Your task to perform on an android device: Search for pizza restaurants on Maps Image 0: 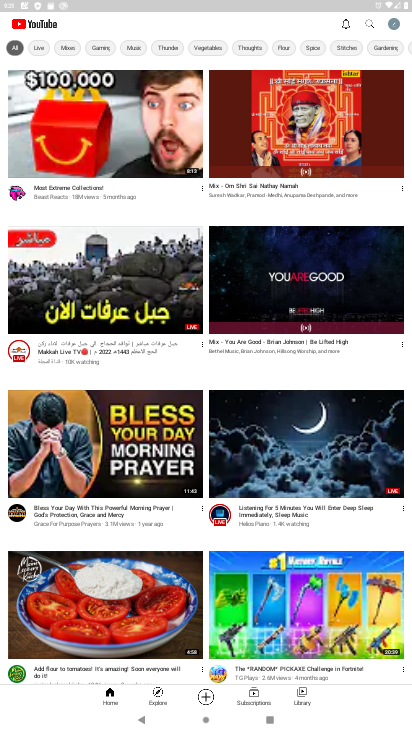
Step 0: press home button
Your task to perform on an android device: Search for pizza restaurants on Maps Image 1: 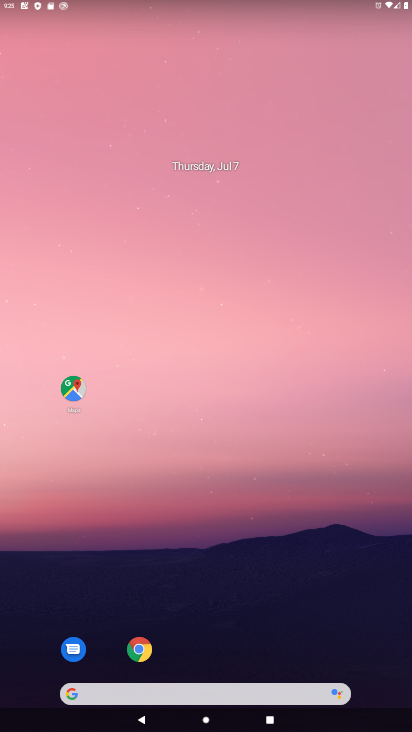
Step 1: drag from (208, 678) to (197, 76)
Your task to perform on an android device: Search for pizza restaurants on Maps Image 2: 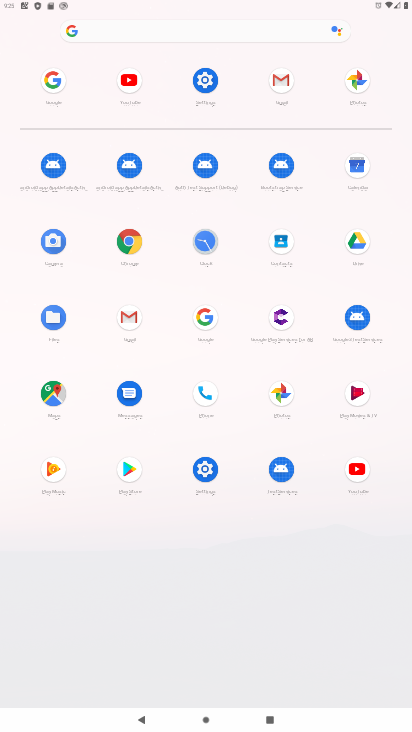
Step 2: click (40, 394)
Your task to perform on an android device: Search for pizza restaurants on Maps Image 3: 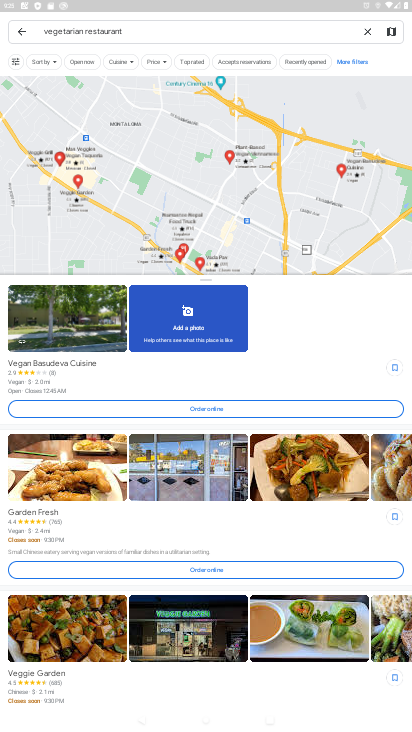
Step 3: click (144, 36)
Your task to perform on an android device: Search for pizza restaurants on Maps Image 4: 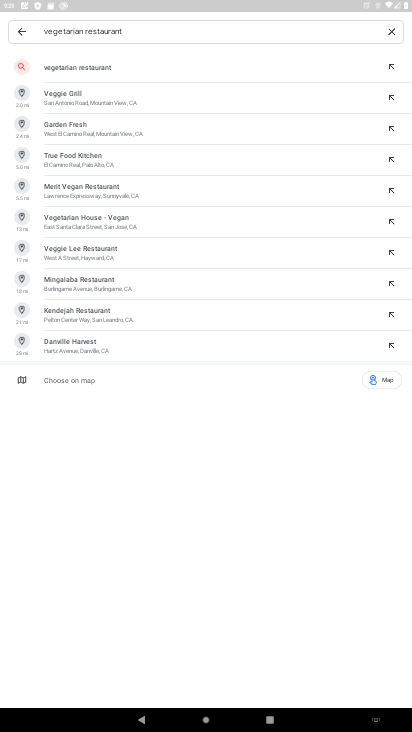
Step 4: click (396, 32)
Your task to perform on an android device: Search for pizza restaurants on Maps Image 5: 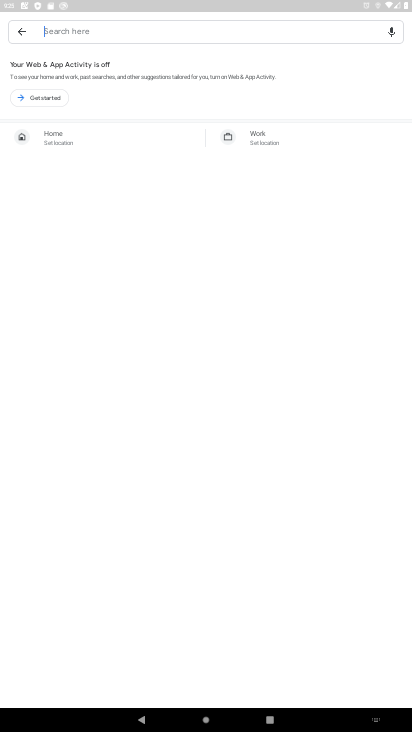
Step 5: type "pizza restaurant"
Your task to perform on an android device: Search for pizza restaurants on Maps Image 6: 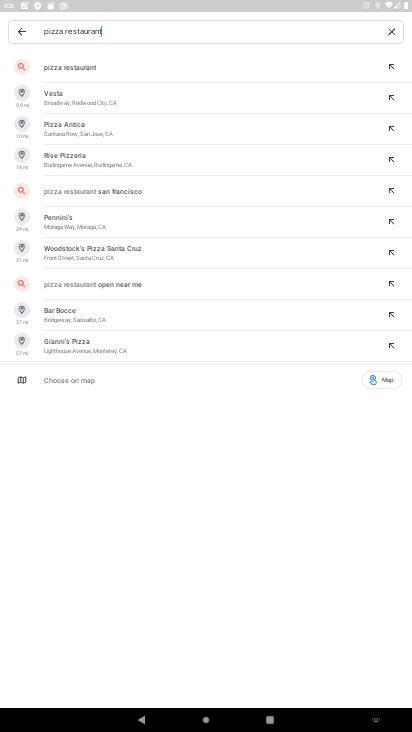
Step 6: click (143, 66)
Your task to perform on an android device: Search for pizza restaurants on Maps Image 7: 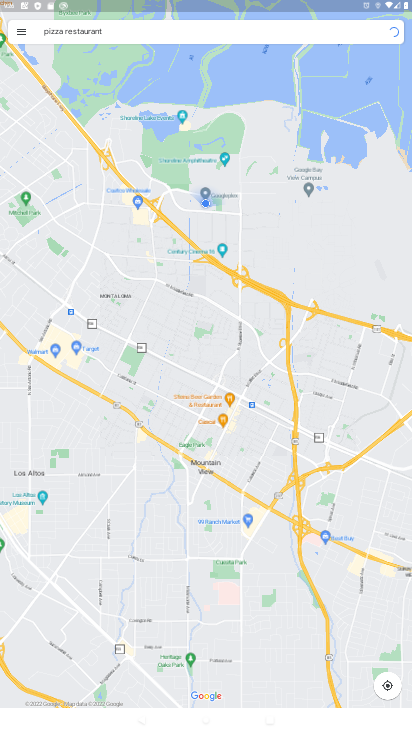
Step 7: task complete